Your task to perform on an android device: Open calendar and show me the first week of next month Image 0: 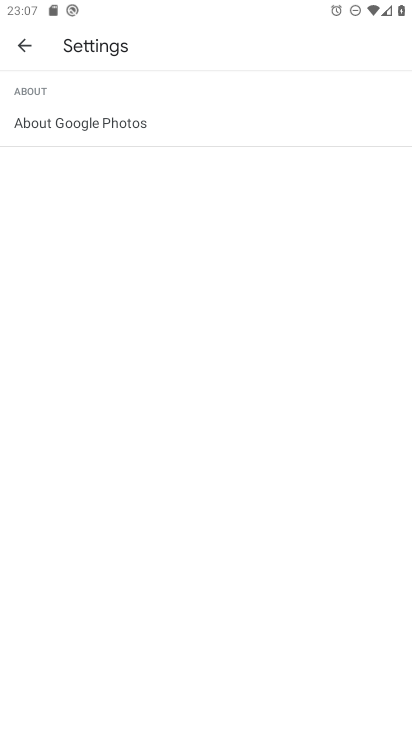
Step 0: press home button
Your task to perform on an android device: Open calendar and show me the first week of next month Image 1: 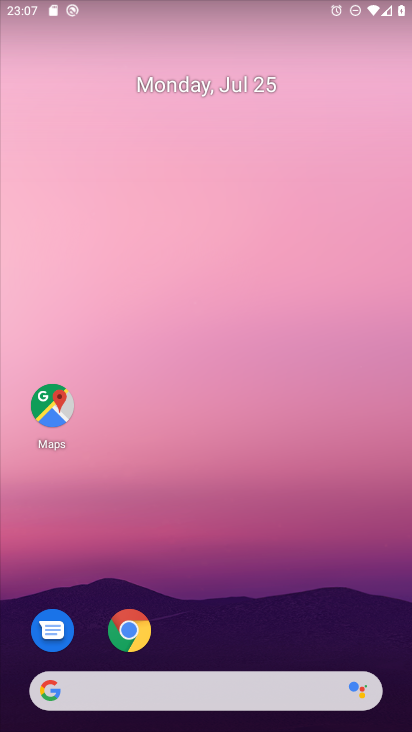
Step 1: drag from (279, 415) to (258, 178)
Your task to perform on an android device: Open calendar and show me the first week of next month Image 2: 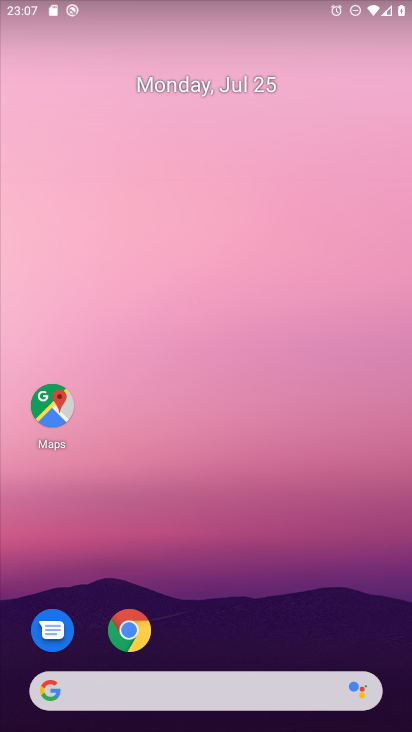
Step 2: drag from (246, 627) to (216, 86)
Your task to perform on an android device: Open calendar and show me the first week of next month Image 3: 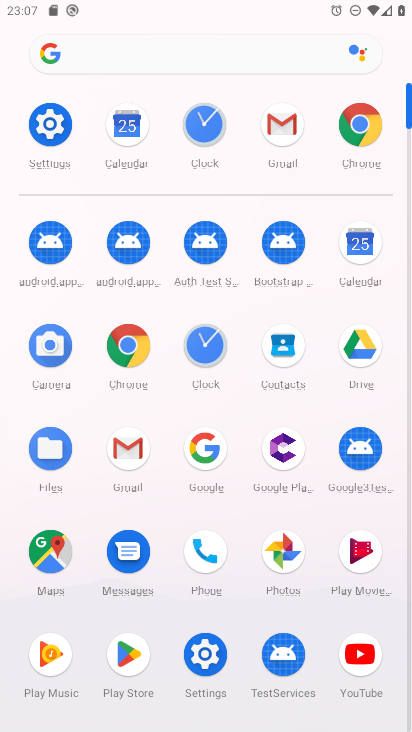
Step 3: click (125, 117)
Your task to perform on an android device: Open calendar and show me the first week of next month Image 4: 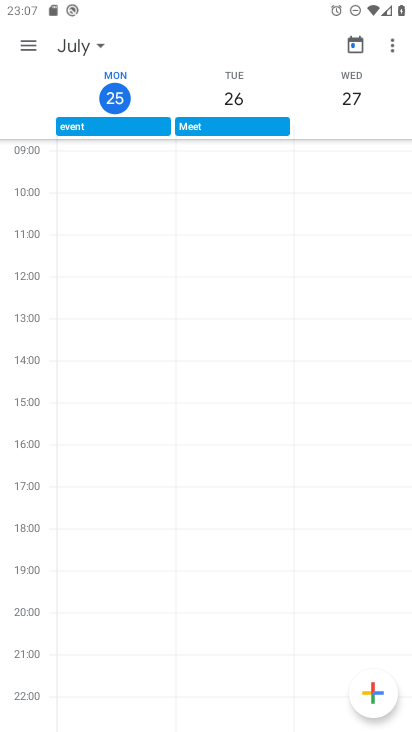
Step 4: click (65, 48)
Your task to perform on an android device: Open calendar and show me the first week of next month Image 5: 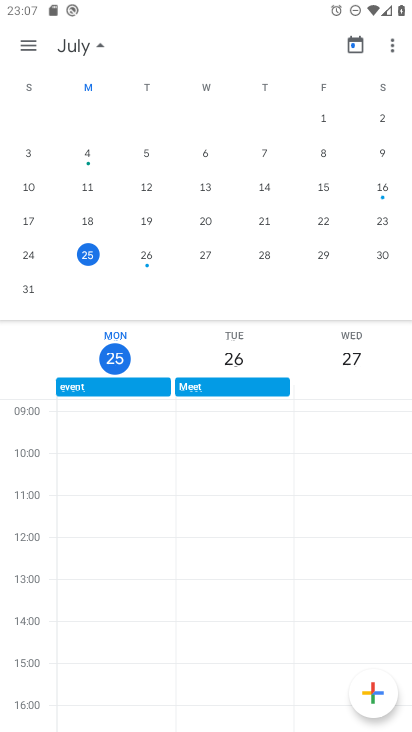
Step 5: drag from (355, 228) to (60, 197)
Your task to perform on an android device: Open calendar and show me the first week of next month Image 6: 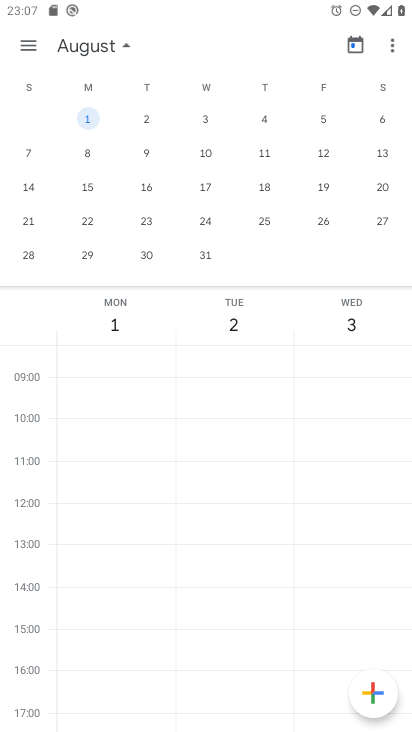
Step 6: click (85, 116)
Your task to perform on an android device: Open calendar and show me the first week of next month Image 7: 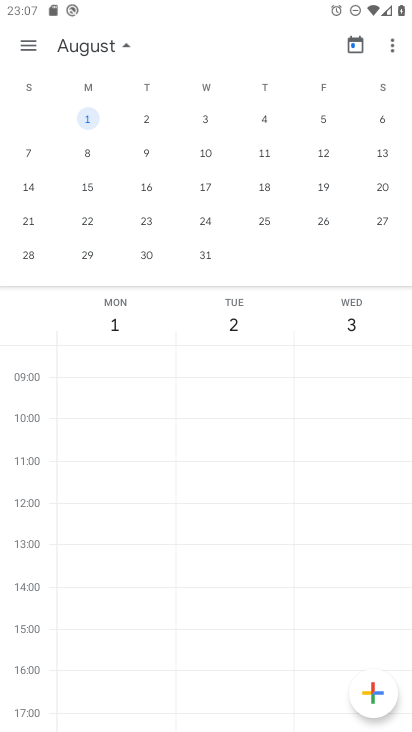
Step 7: click (44, 45)
Your task to perform on an android device: Open calendar and show me the first week of next month Image 8: 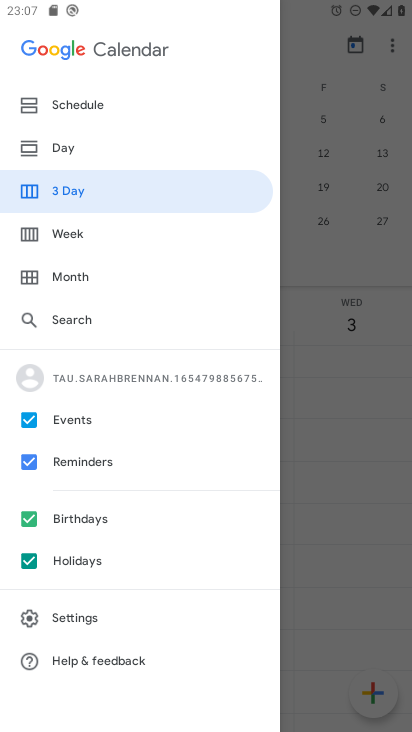
Step 8: click (96, 218)
Your task to perform on an android device: Open calendar and show me the first week of next month Image 9: 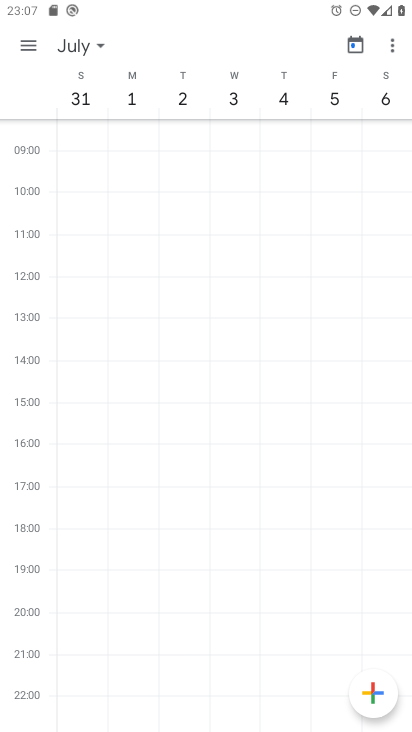
Step 9: task complete